Your task to perform on an android device: What's the weather? Image 0: 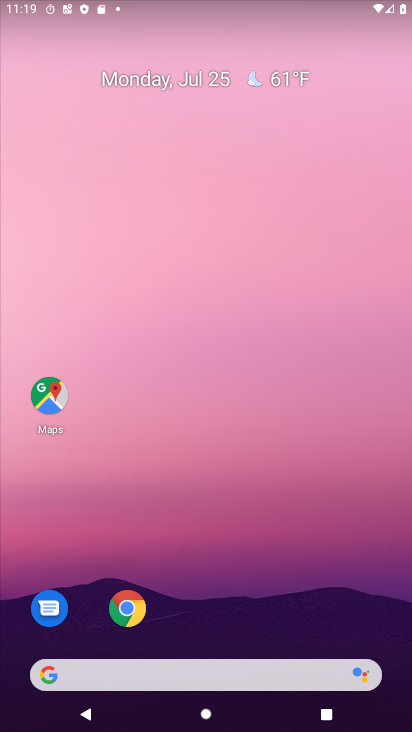
Step 0: drag from (296, 656) to (137, 47)
Your task to perform on an android device: What's the weather? Image 1: 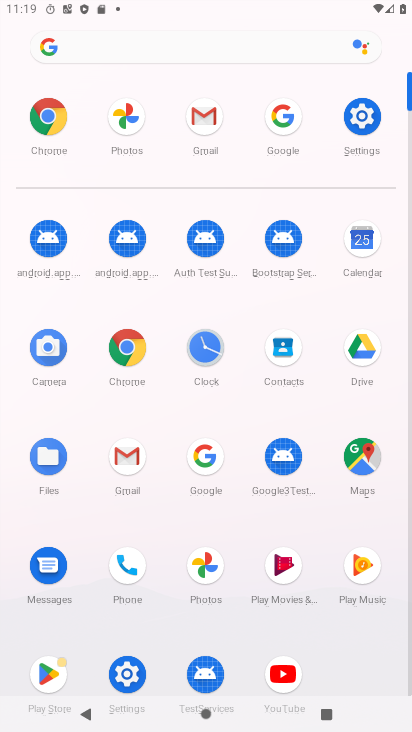
Step 1: click (211, 468)
Your task to perform on an android device: What's the weather? Image 2: 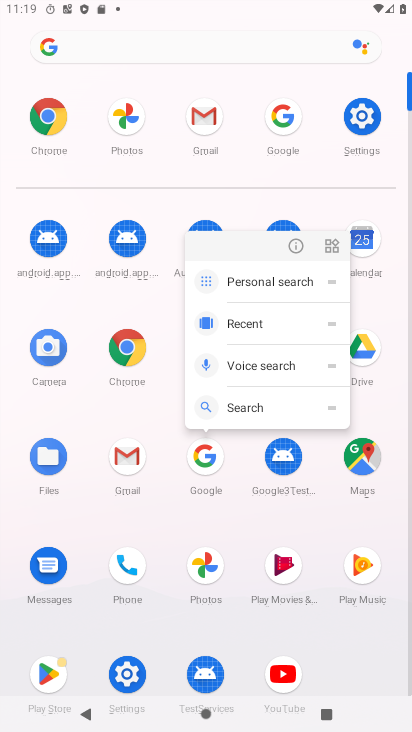
Step 2: click (211, 468)
Your task to perform on an android device: What's the weather? Image 3: 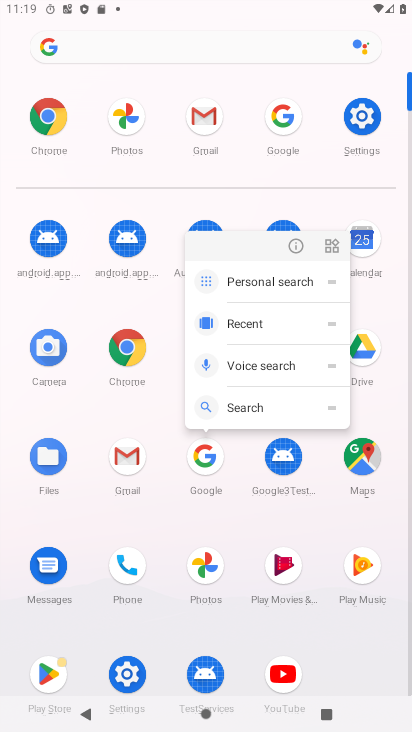
Step 3: click (211, 468)
Your task to perform on an android device: What's the weather? Image 4: 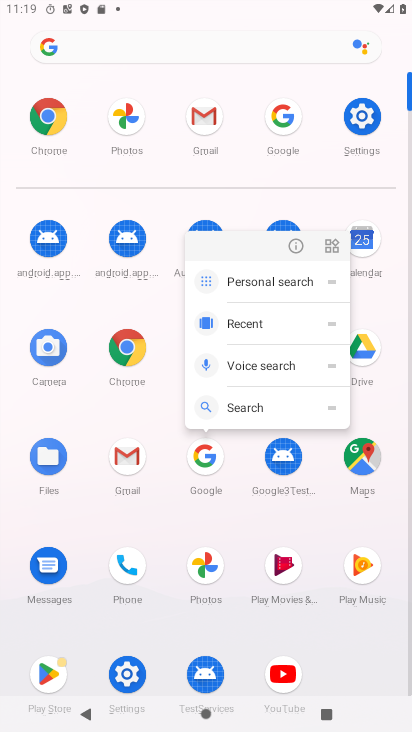
Step 4: click (208, 466)
Your task to perform on an android device: What's the weather? Image 5: 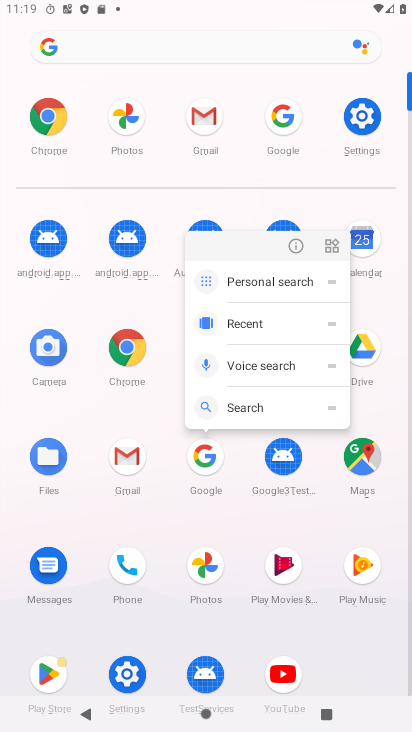
Step 5: click (196, 454)
Your task to perform on an android device: What's the weather? Image 6: 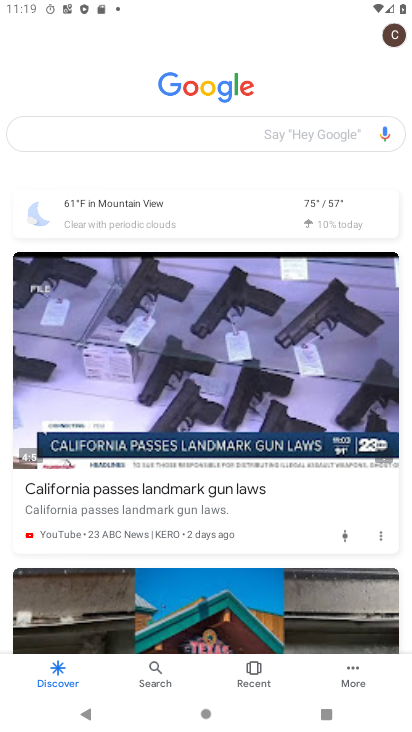
Step 6: click (96, 220)
Your task to perform on an android device: What's the weather? Image 7: 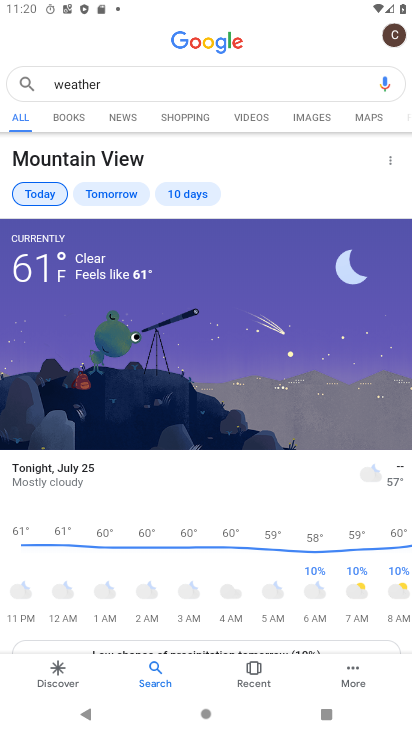
Step 7: task complete